Your task to perform on an android device: change the clock display to analog Image 0: 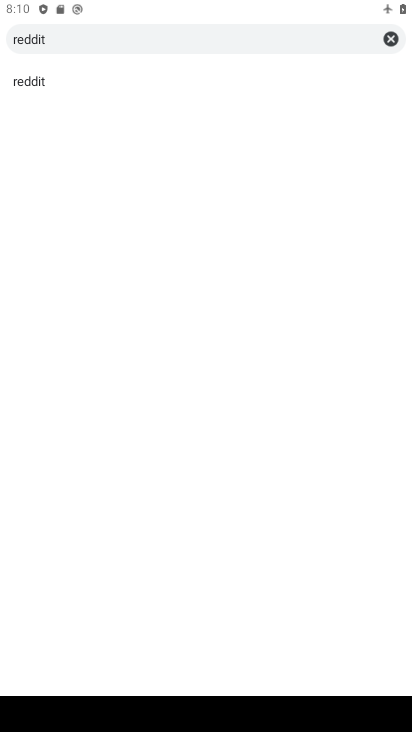
Step 0: press home button
Your task to perform on an android device: change the clock display to analog Image 1: 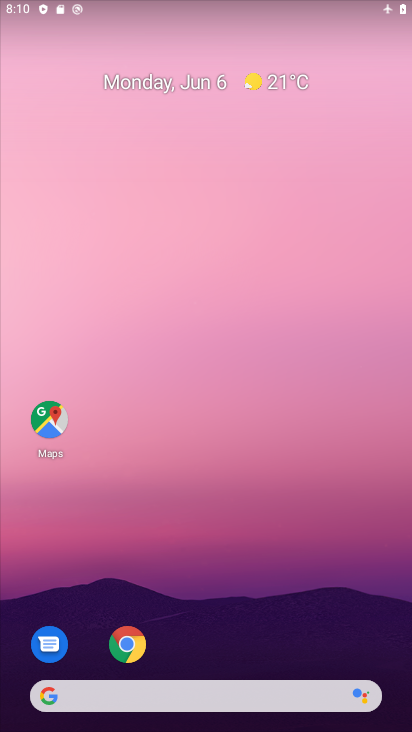
Step 1: drag from (202, 676) to (201, 126)
Your task to perform on an android device: change the clock display to analog Image 2: 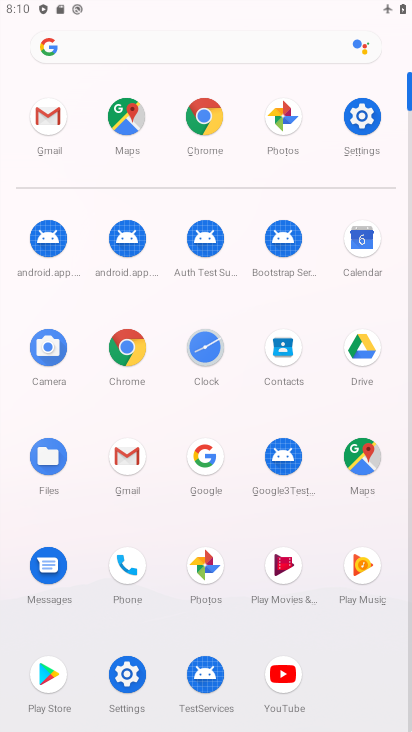
Step 2: click (198, 359)
Your task to perform on an android device: change the clock display to analog Image 3: 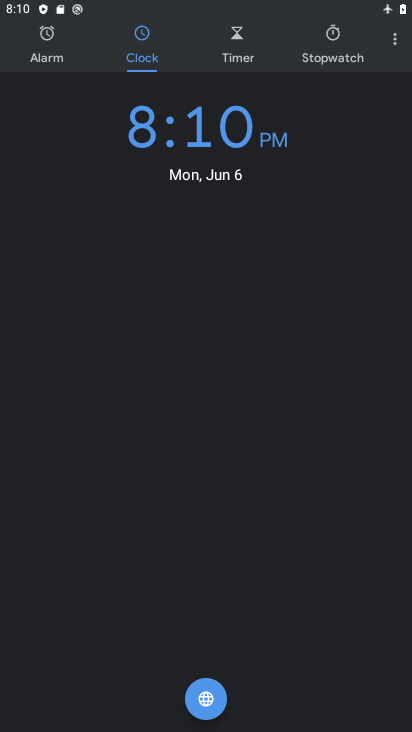
Step 3: drag from (397, 37) to (322, 80)
Your task to perform on an android device: change the clock display to analog Image 4: 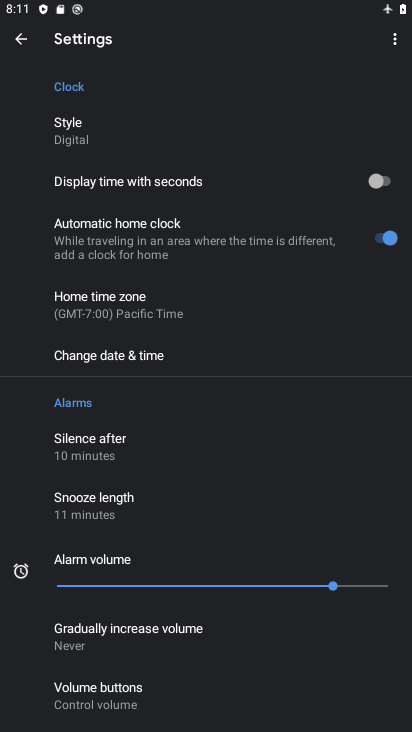
Step 4: click (117, 135)
Your task to perform on an android device: change the clock display to analog Image 5: 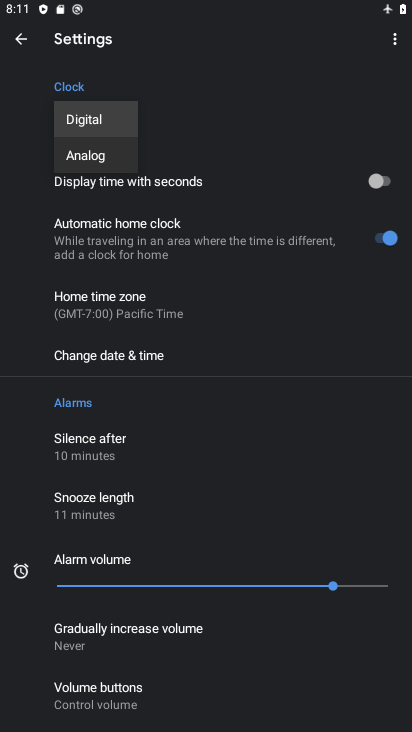
Step 5: click (101, 142)
Your task to perform on an android device: change the clock display to analog Image 6: 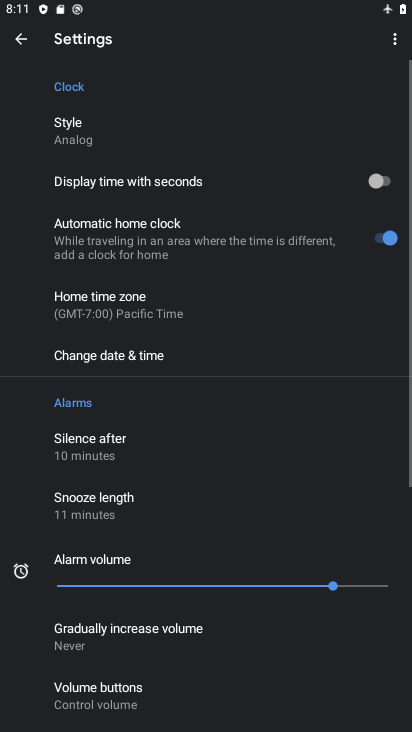
Step 6: task complete